Your task to perform on an android device: set the stopwatch Image 0: 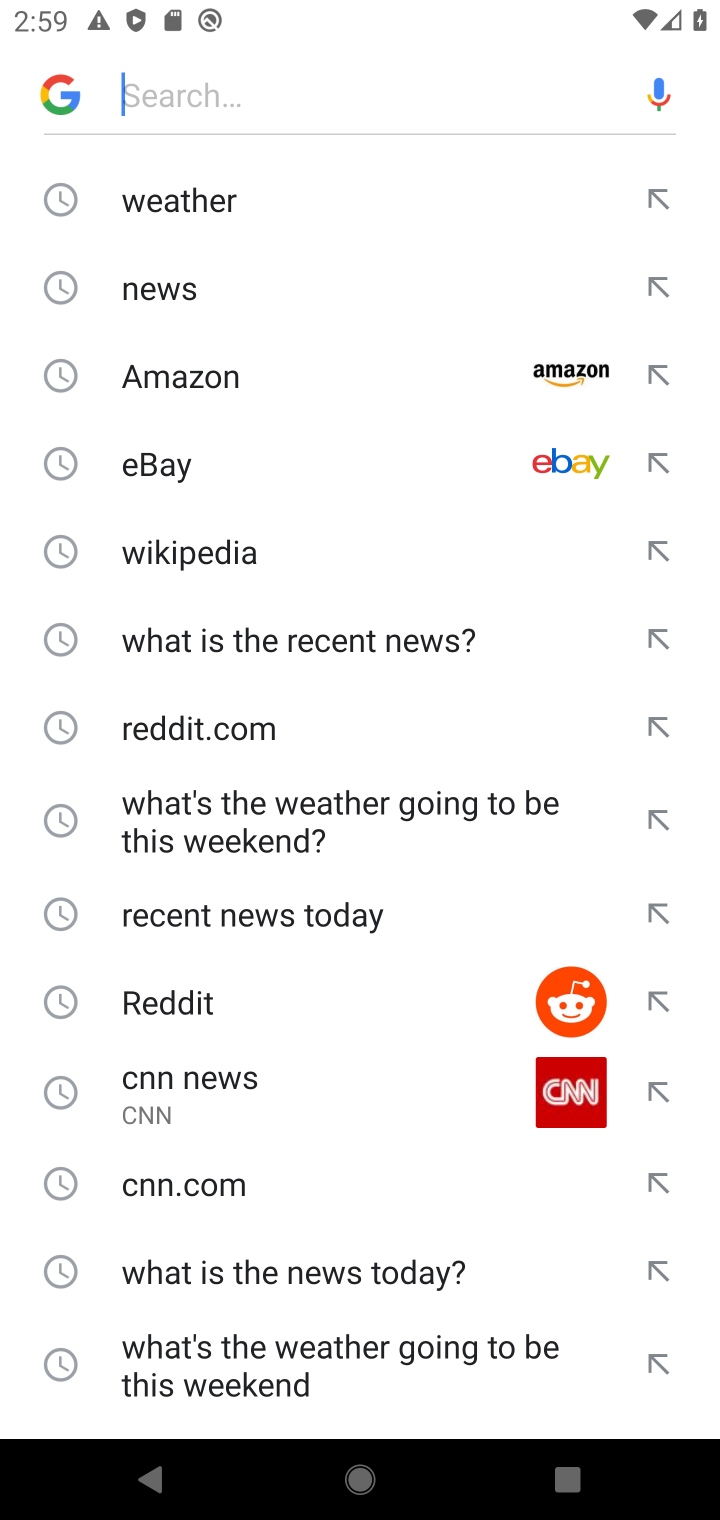
Step 0: press back button
Your task to perform on an android device: set the stopwatch Image 1: 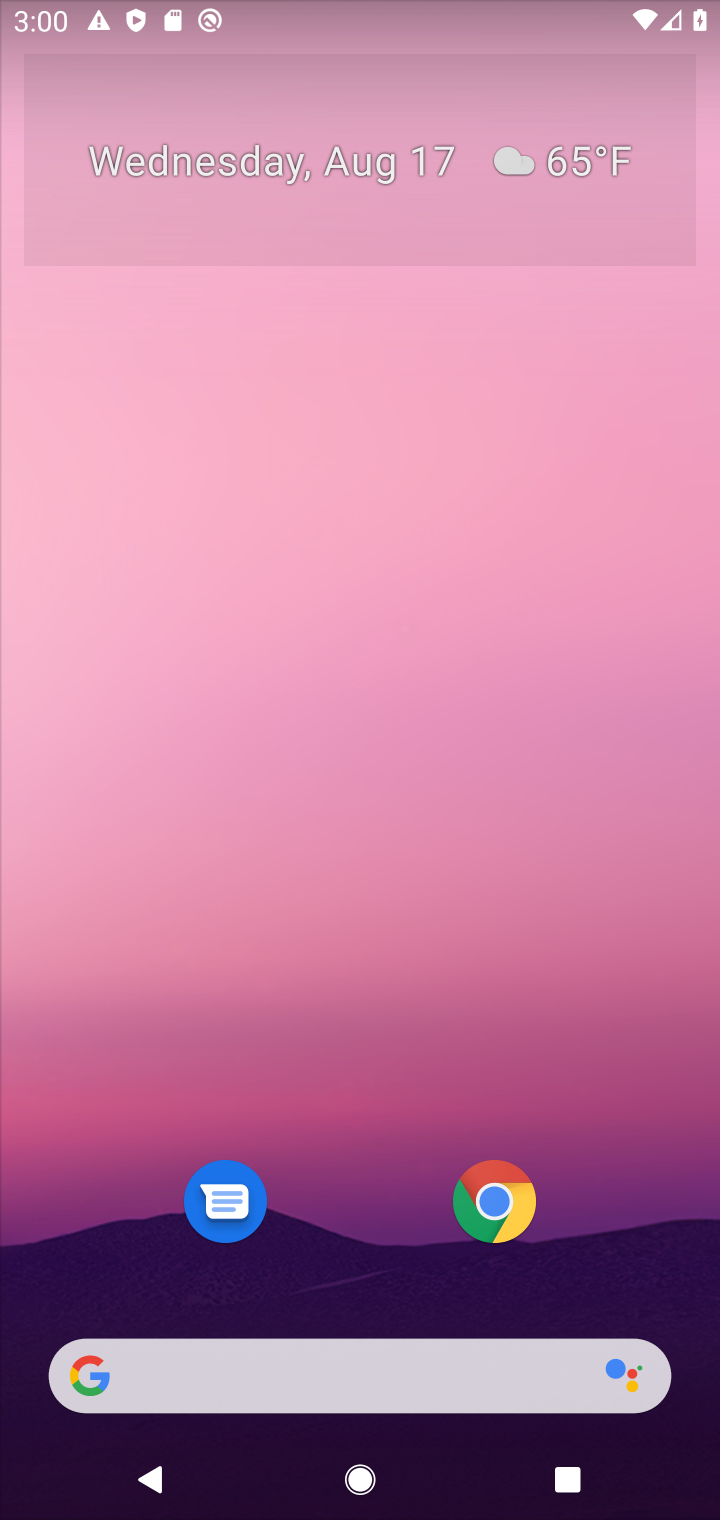
Step 1: drag from (351, 1026) to (466, 205)
Your task to perform on an android device: set the stopwatch Image 2: 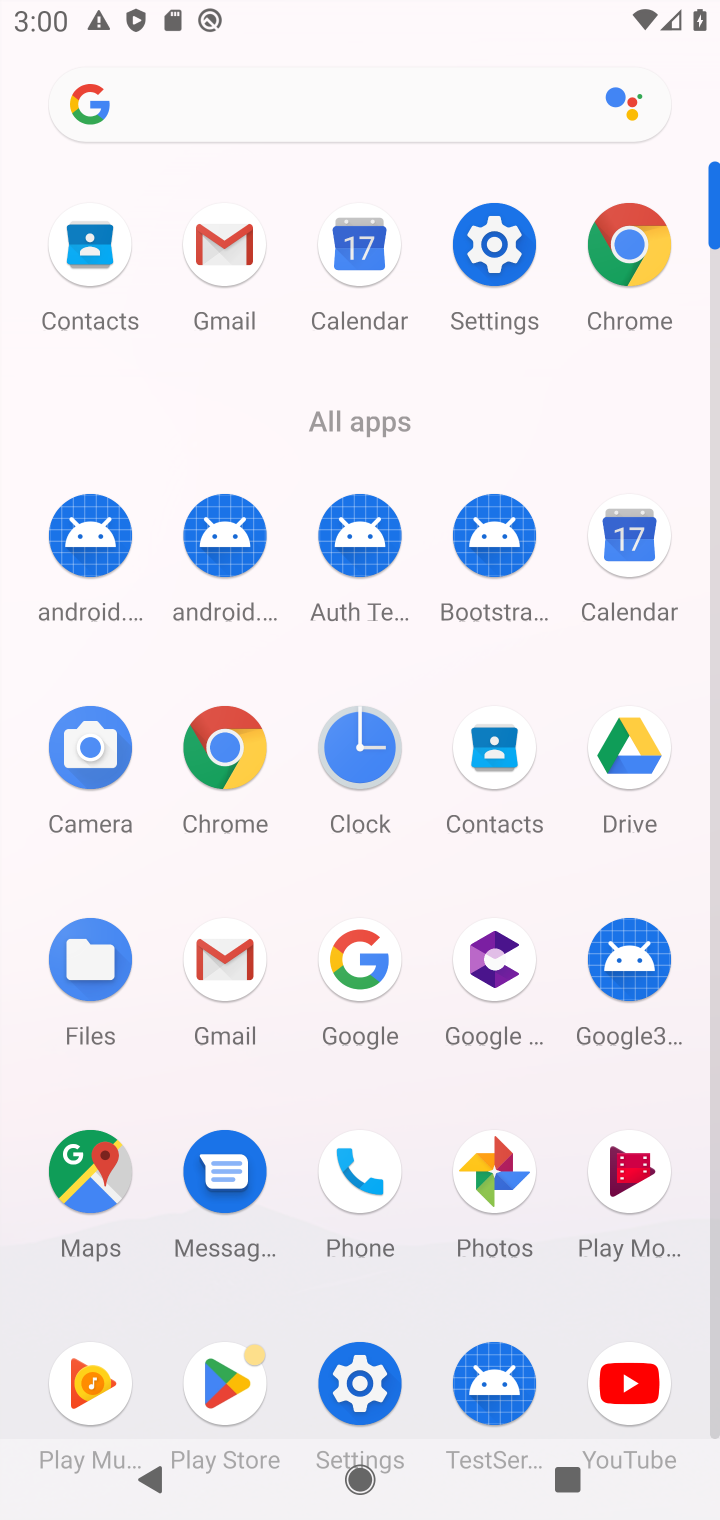
Step 2: click (319, 744)
Your task to perform on an android device: set the stopwatch Image 3: 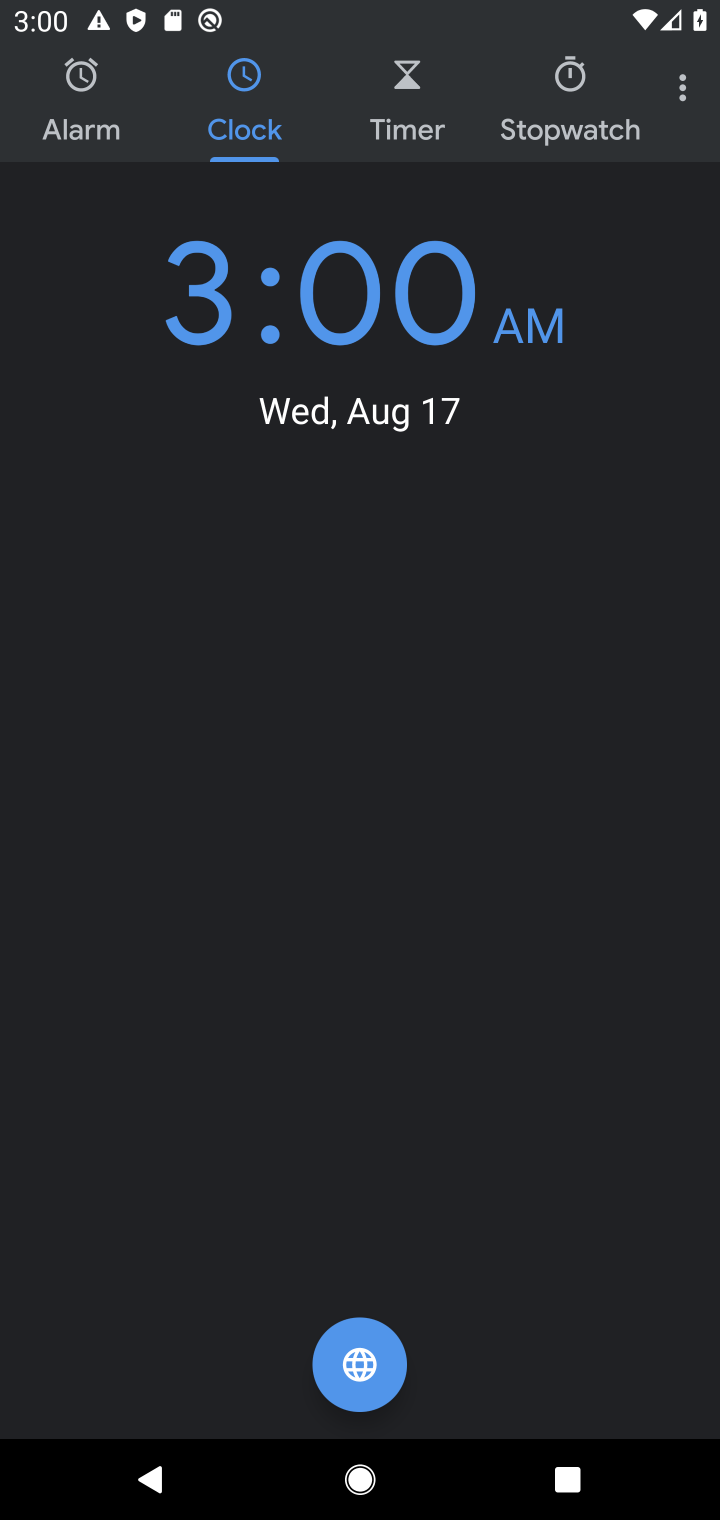
Step 3: click (594, 89)
Your task to perform on an android device: set the stopwatch Image 4: 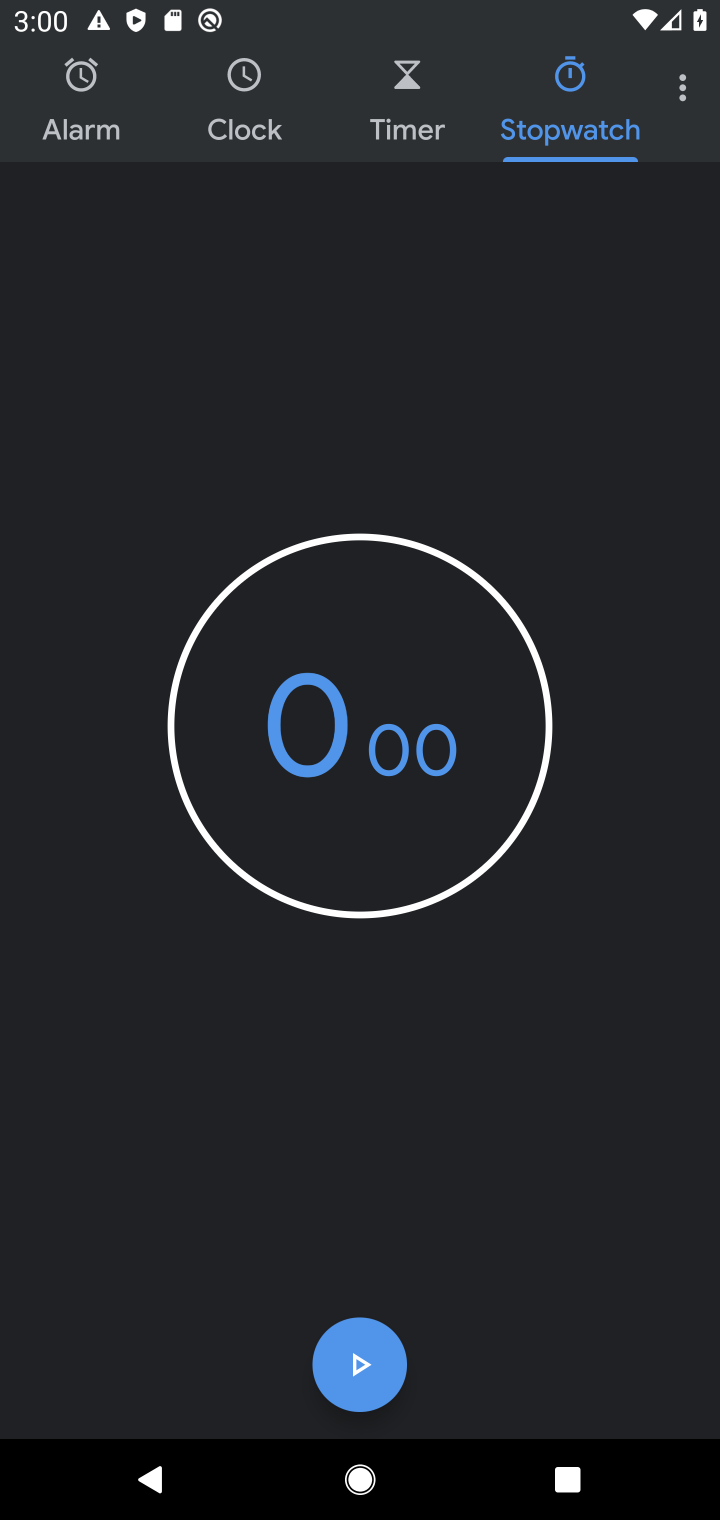
Step 4: click (316, 839)
Your task to perform on an android device: set the stopwatch Image 5: 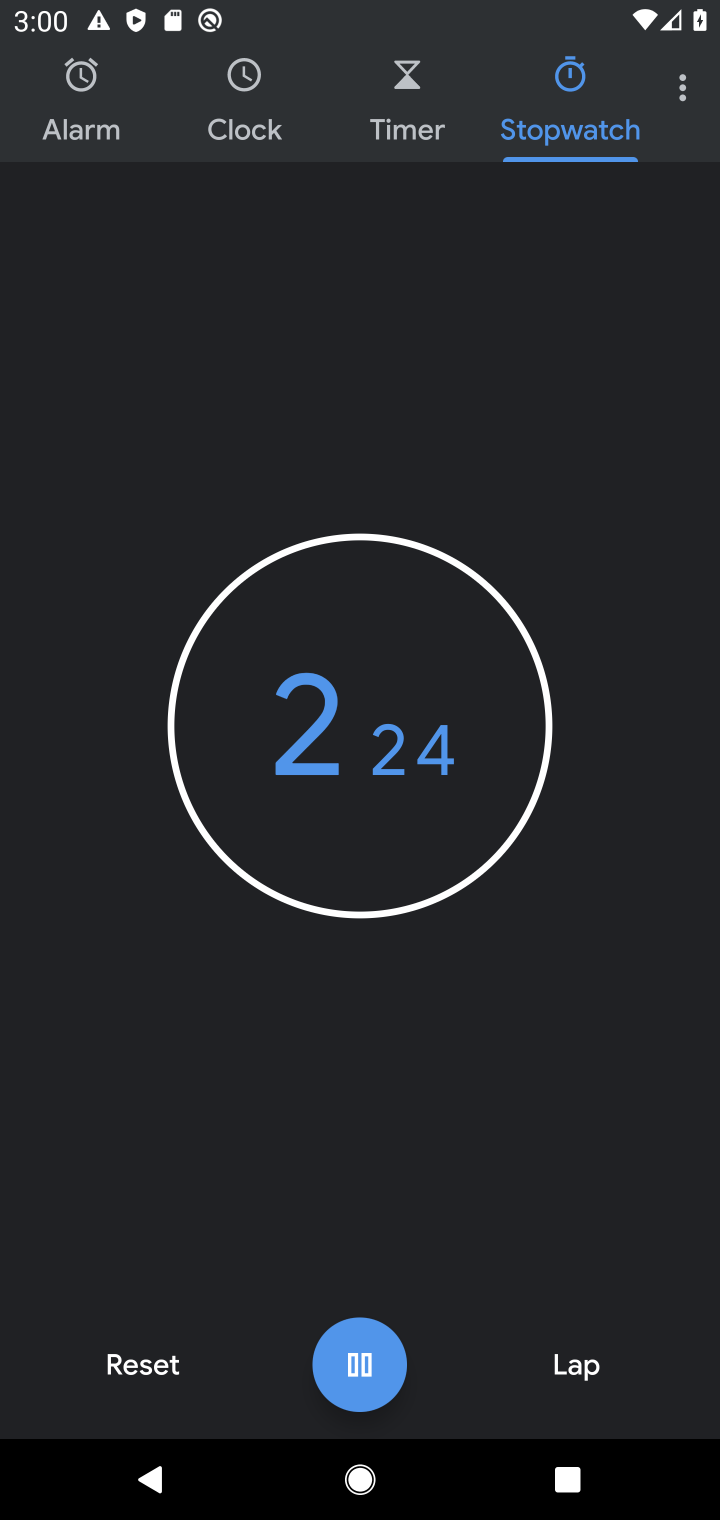
Step 5: click (316, 839)
Your task to perform on an android device: set the stopwatch Image 6: 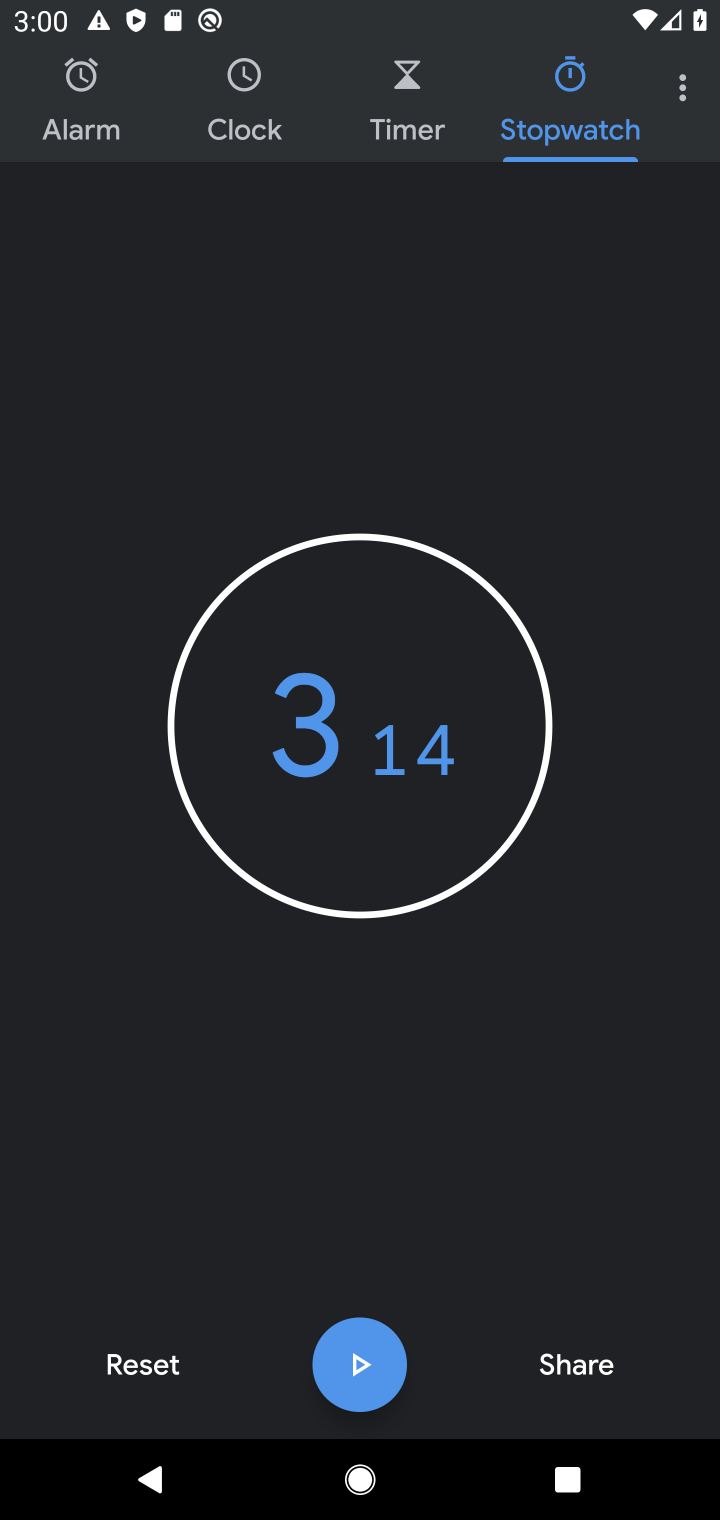
Step 6: task complete